Your task to perform on an android device: open a new tab in the chrome app Image 0: 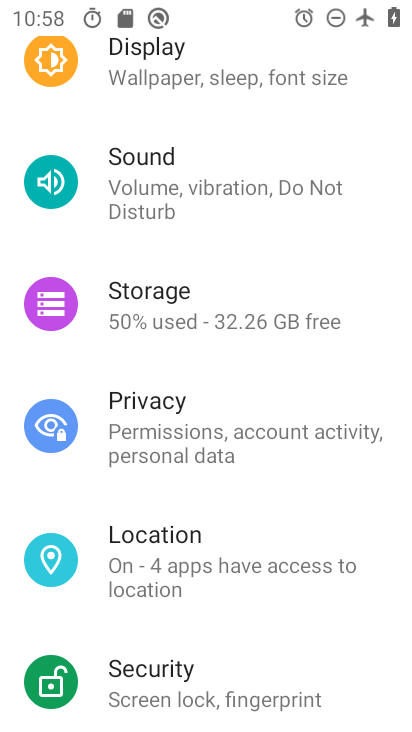
Step 0: press home button
Your task to perform on an android device: open a new tab in the chrome app Image 1: 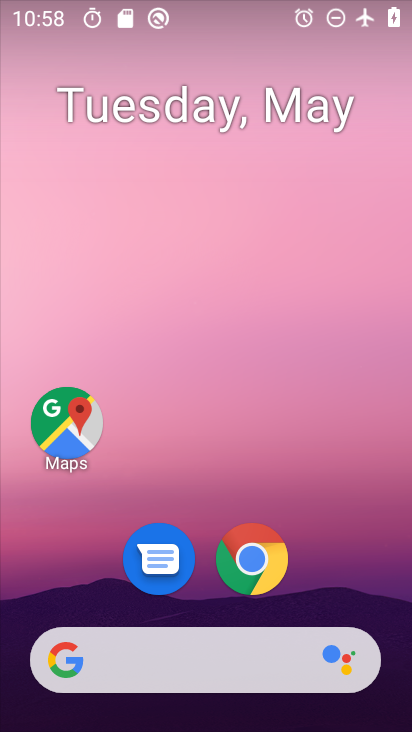
Step 1: drag from (364, 606) to (278, 82)
Your task to perform on an android device: open a new tab in the chrome app Image 2: 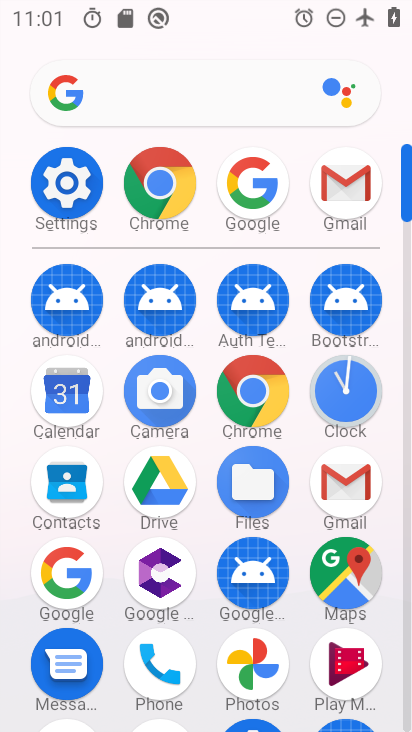
Step 2: click (176, 184)
Your task to perform on an android device: open a new tab in the chrome app Image 3: 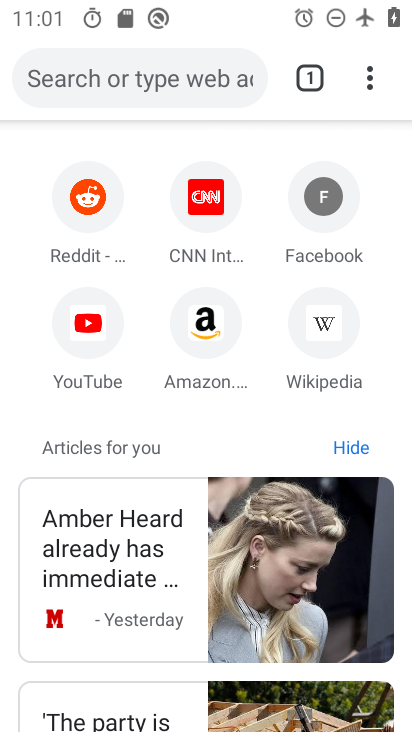
Step 3: click (374, 70)
Your task to perform on an android device: open a new tab in the chrome app Image 4: 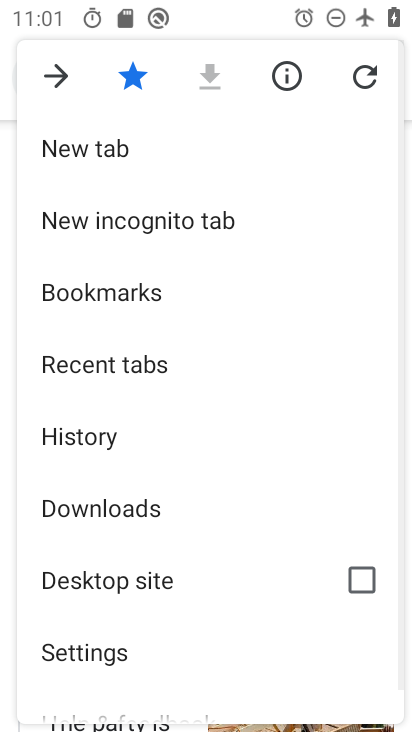
Step 4: click (145, 164)
Your task to perform on an android device: open a new tab in the chrome app Image 5: 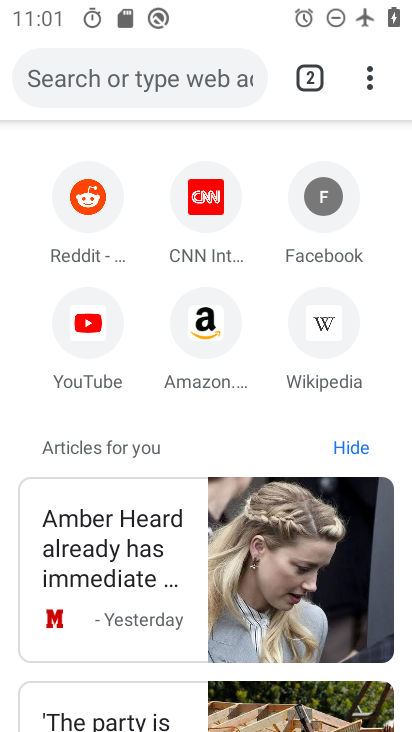
Step 5: task complete